Your task to perform on an android device: Do I have any events today? Image 0: 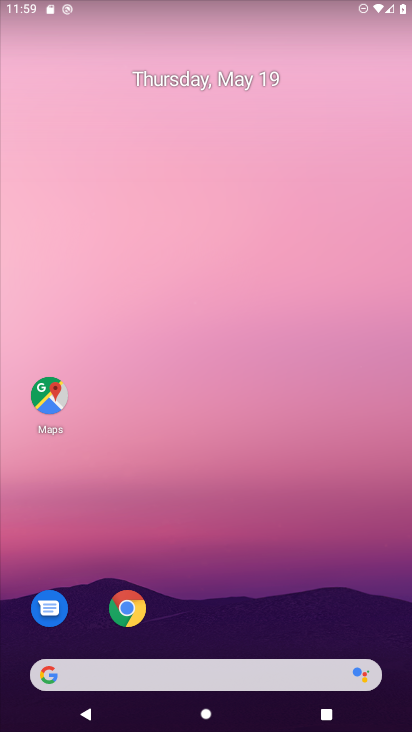
Step 0: drag from (226, 628) to (317, 12)
Your task to perform on an android device: Do I have any events today? Image 1: 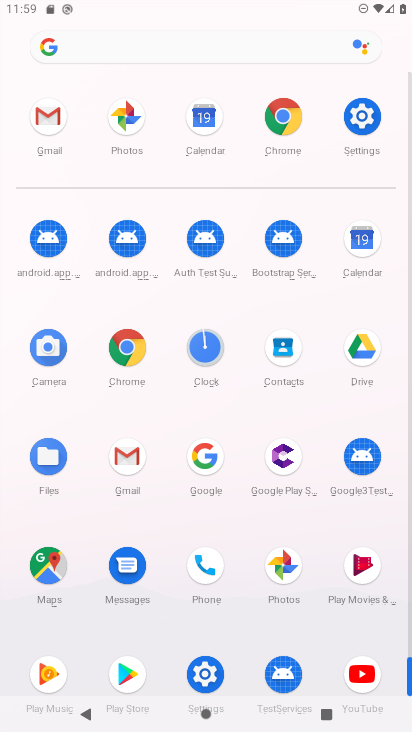
Step 1: click (364, 254)
Your task to perform on an android device: Do I have any events today? Image 2: 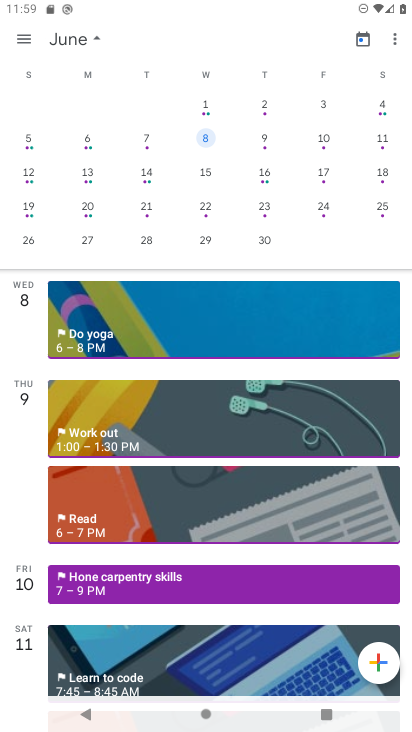
Step 2: drag from (64, 122) to (404, 132)
Your task to perform on an android device: Do I have any events today? Image 3: 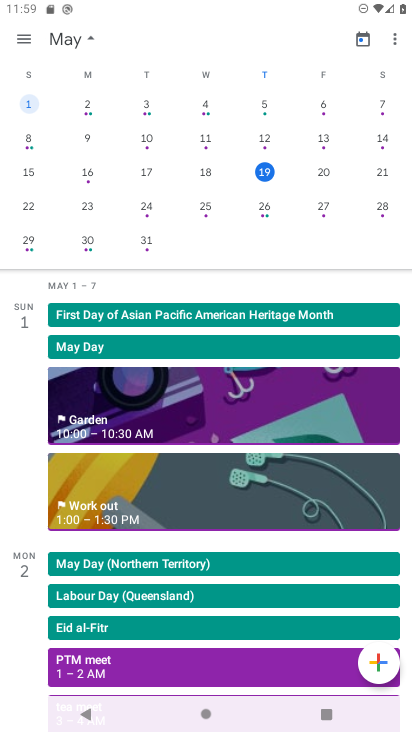
Step 3: click (327, 169)
Your task to perform on an android device: Do I have any events today? Image 4: 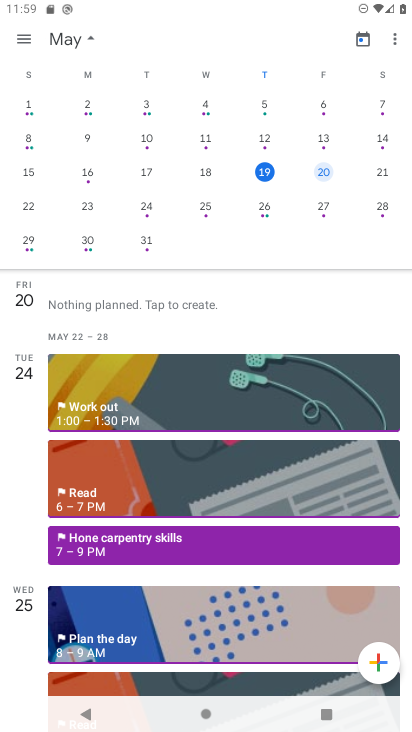
Step 4: click (90, 36)
Your task to perform on an android device: Do I have any events today? Image 5: 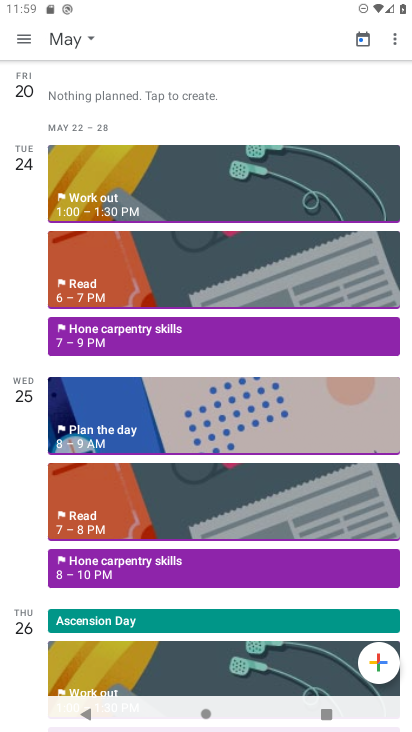
Step 5: task complete